Your task to perform on an android device: Open Amazon Image 0: 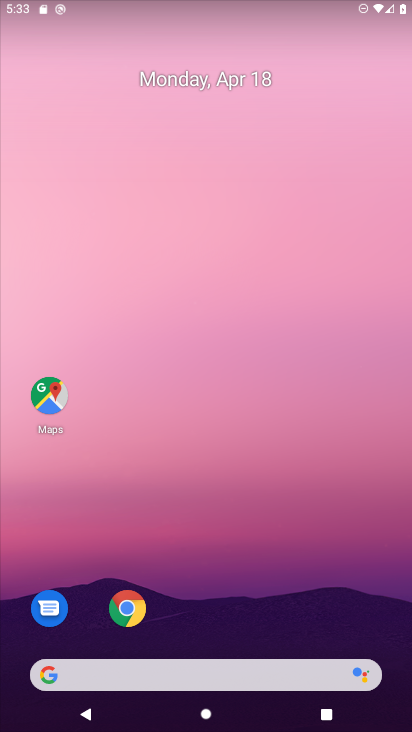
Step 0: drag from (336, 592) to (289, 42)
Your task to perform on an android device: Open Amazon Image 1: 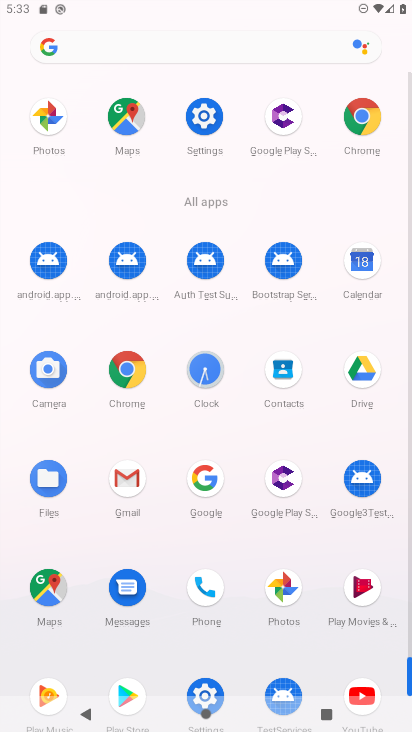
Step 1: click (364, 113)
Your task to perform on an android device: Open Amazon Image 2: 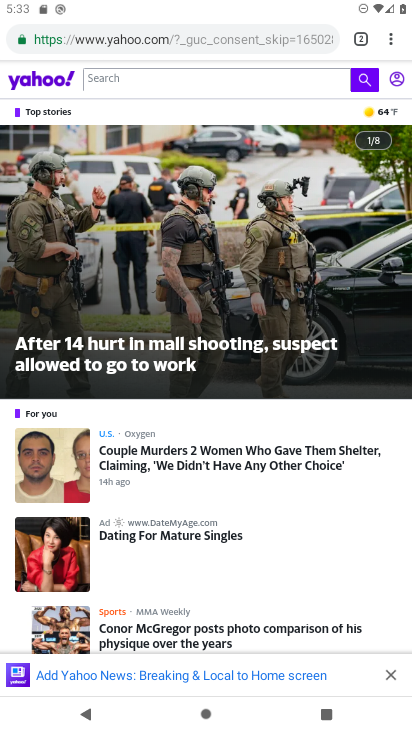
Step 2: click (277, 30)
Your task to perform on an android device: Open Amazon Image 3: 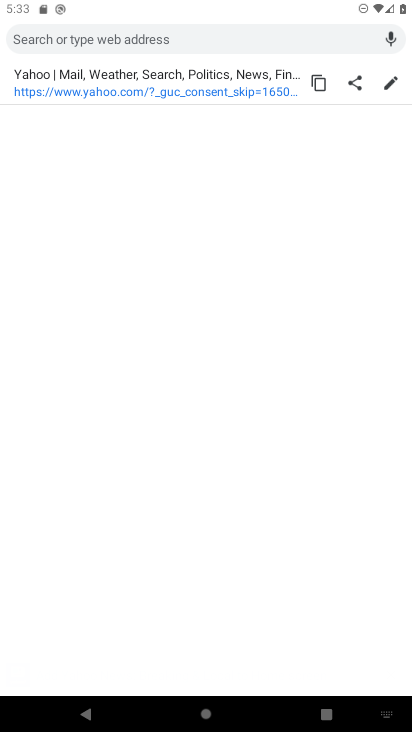
Step 3: type "Yahoo.com"
Your task to perform on an android device: Open Amazon Image 4: 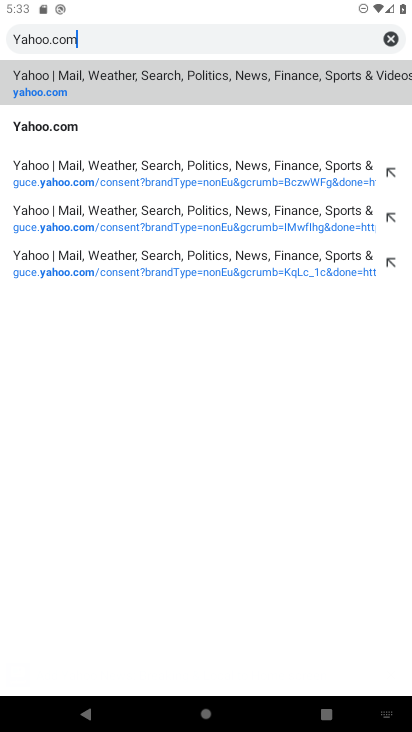
Step 4: type ""
Your task to perform on an android device: Open Amazon Image 5: 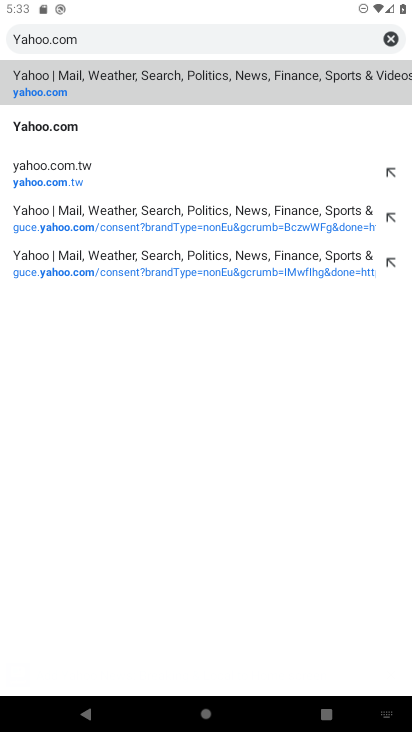
Step 5: click (393, 39)
Your task to perform on an android device: Open Amazon Image 6: 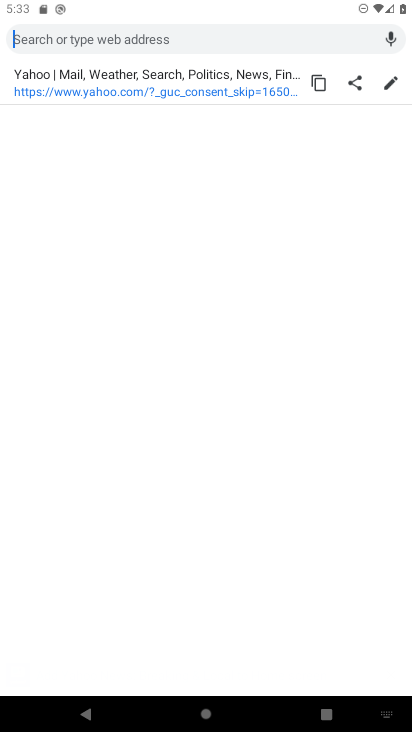
Step 6: type "Amazon"
Your task to perform on an android device: Open Amazon Image 7: 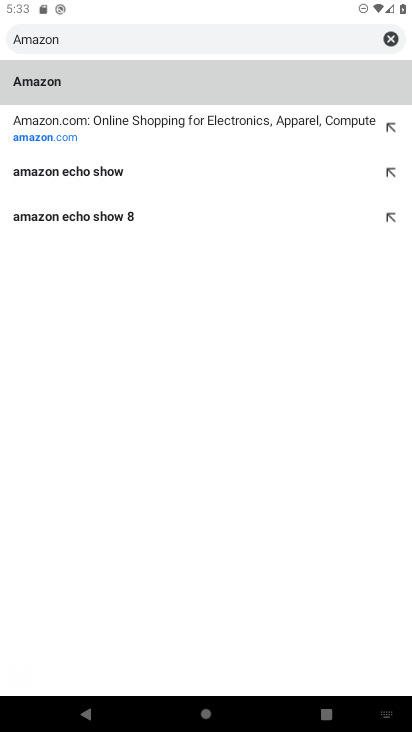
Step 7: click (85, 142)
Your task to perform on an android device: Open Amazon Image 8: 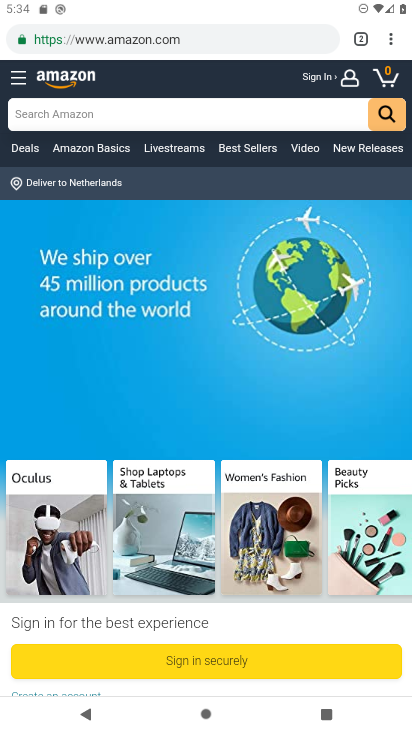
Step 8: task complete